Your task to perform on an android device: open the mobile data screen to see how much data has been used Image 0: 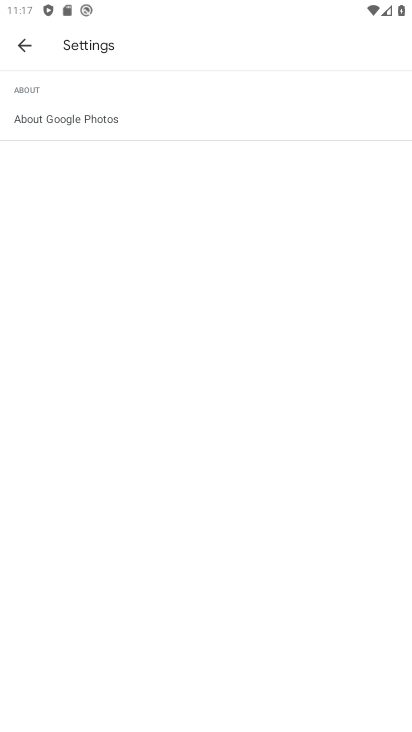
Step 0: press home button
Your task to perform on an android device: open the mobile data screen to see how much data has been used Image 1: 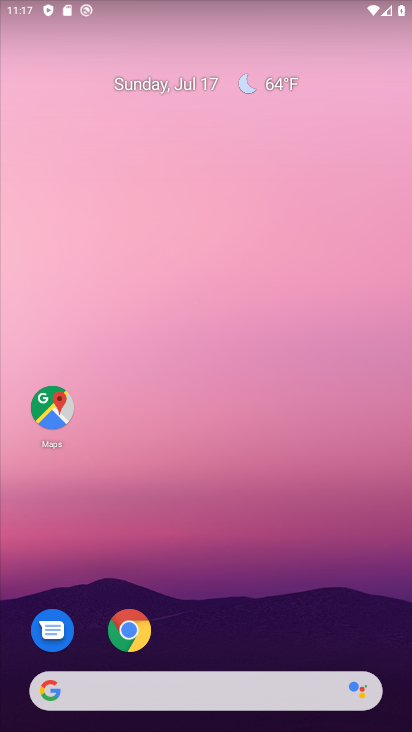
Step 1: drag from (374, 620) to (322, 203)
Your task to perform on an android device: open the mobile data screen to see how much data has been used Image 2: 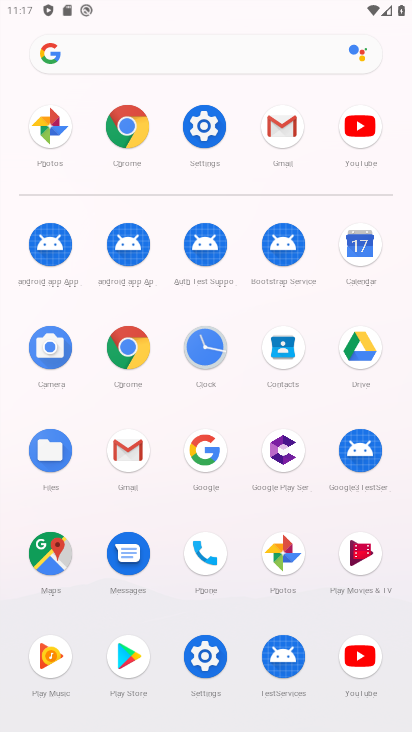
Step 2: click (204, 658)
Your task to perform on an android device: open the mobile data screen to see how much data has been used Image 3: 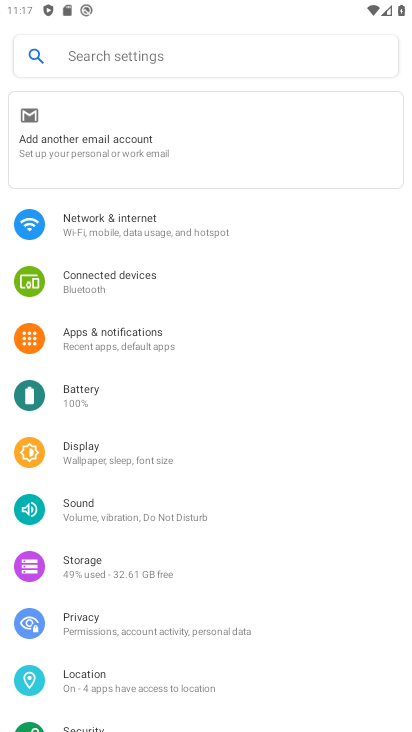
Step 3: click (93, 219)
Your task to perform on an android device: open the mobile data screen to see how much data has been used Image 4: 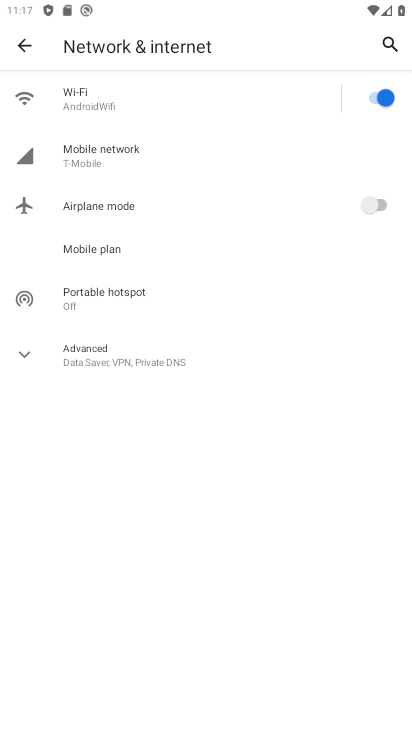
Step 4: click (95, 151)
Your task to perform on an android device: open the mobile data screen to see how much data has been used Image 5: 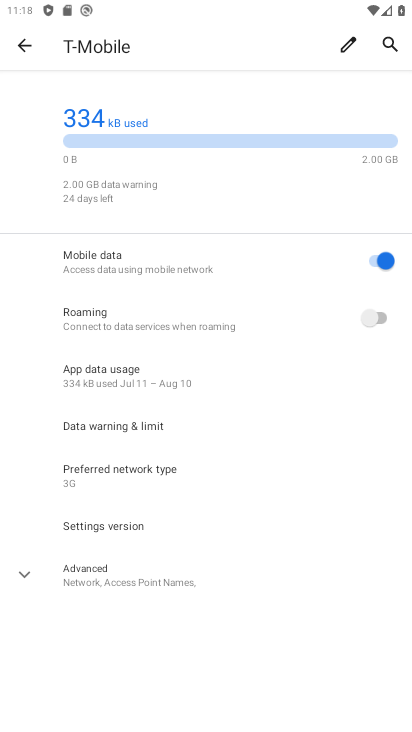
Step 5: click (23, 574)
Your task to perform on an android device: open the mobile data screen to see how much data has been used Image 6: 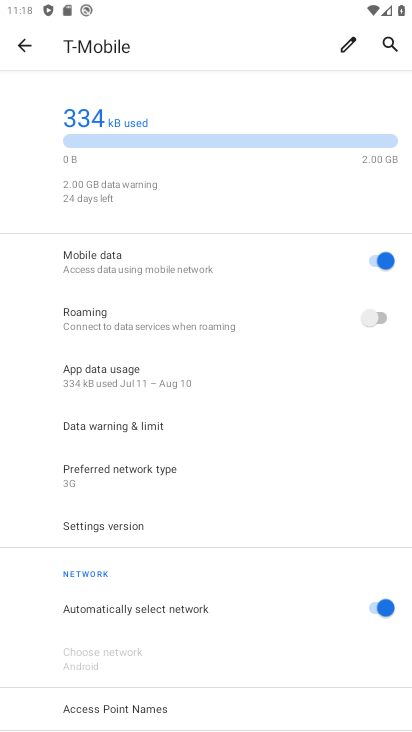
Step 6: task complete